Your task to perform on an android device: Open internet settings Image 0: 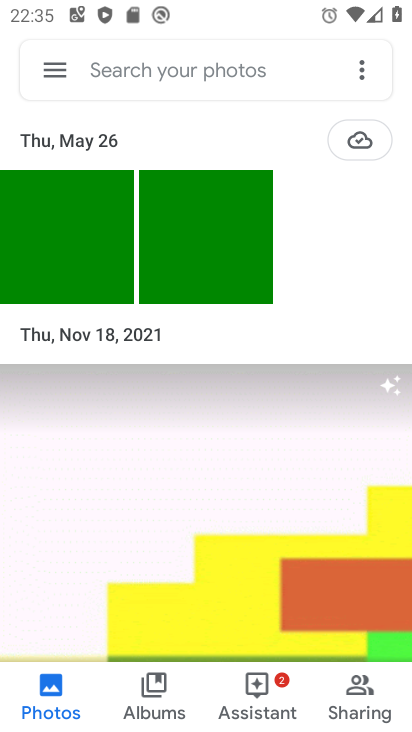
Step 0: press home button
Your task to perform on an android device: Open internet settings Image 1: 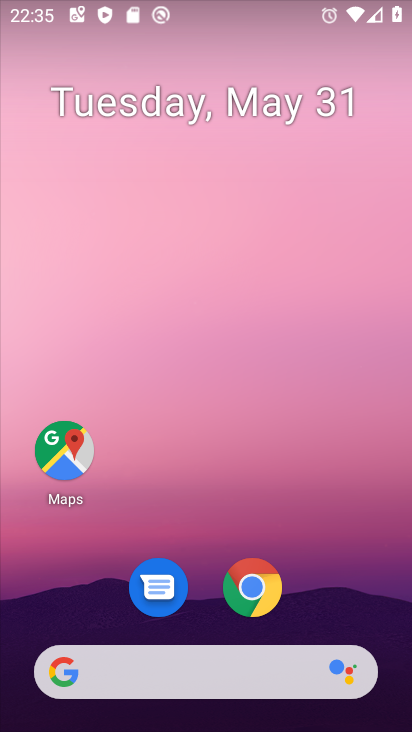
Step 1: drag from (380, 617) to (410, 178)
Your task to perform on an android device: Open internet settings Image 2: 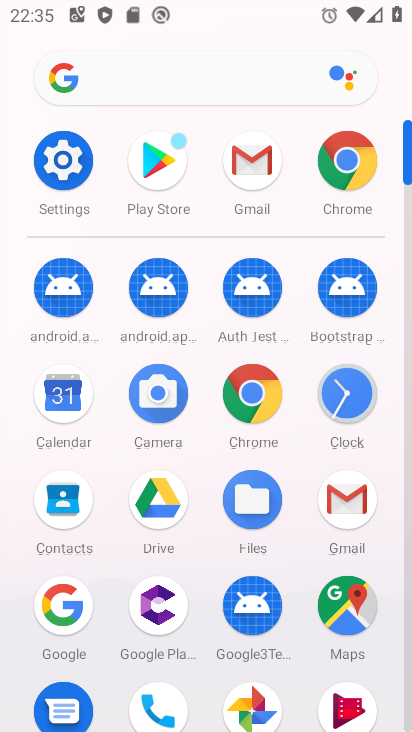
Step 2: click (74, 192)
Your task to perform on an android device: Open internet settings Image 3: 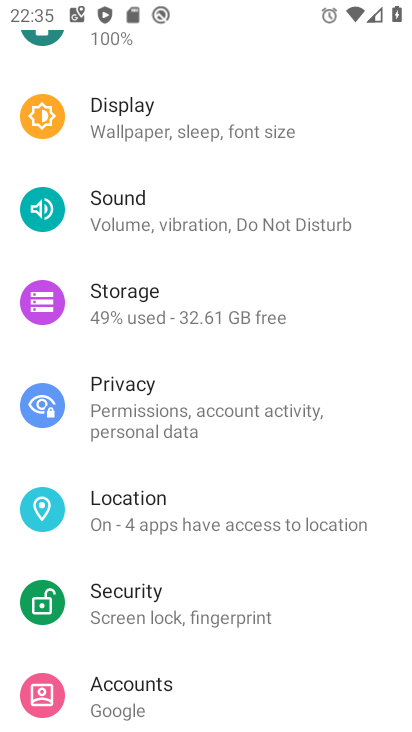
Step 3: drag from (377, 275) to (374, 359)
Your task to perform on an android device: Open internet settings Image 4: 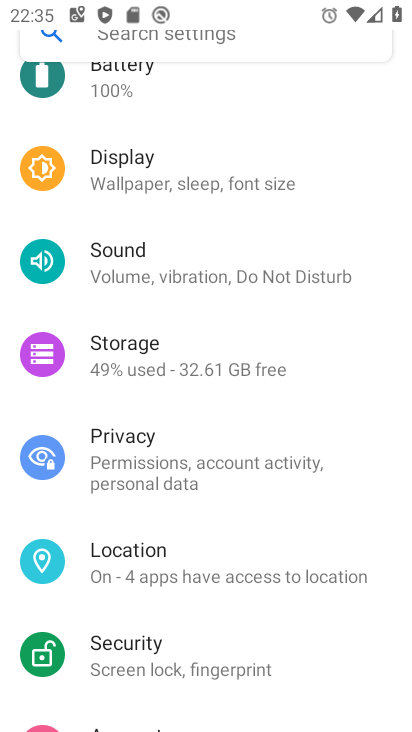
Step 4: drag from (378, 232) to (384, 328)
Your task to perform on an android device: Open internet settings Image 5: 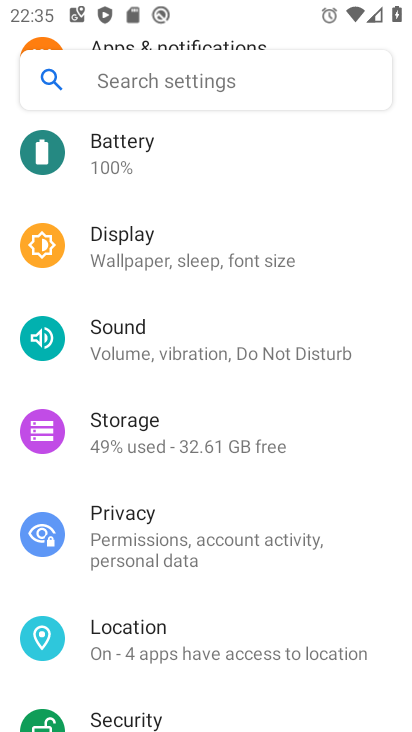
Step 5: drag from (376, 219) to (375, 309)
Your task to perform on an android device: Open internet settings Image 6: 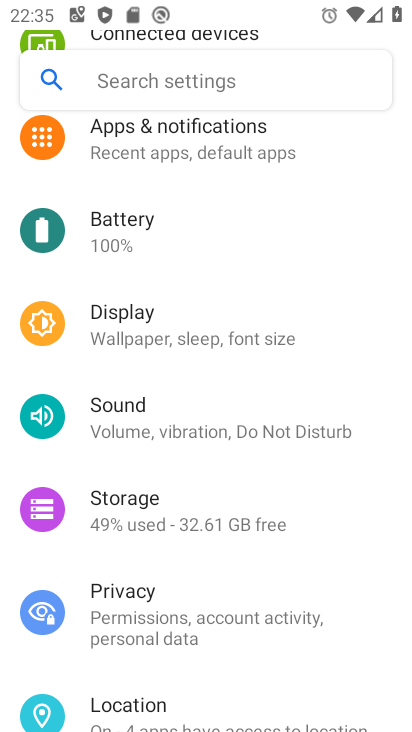
Step 6: drag from (358, 212) to (353, 326)
Your task to perform on an android device: Open internet settings Image 7: 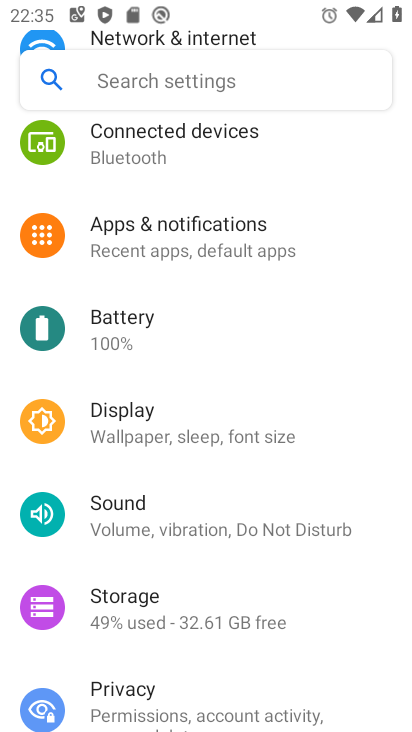
Step 7: drag from (356, 223) to (367, 344)
Your task to perform on an android device: Open internet settings Image 8: 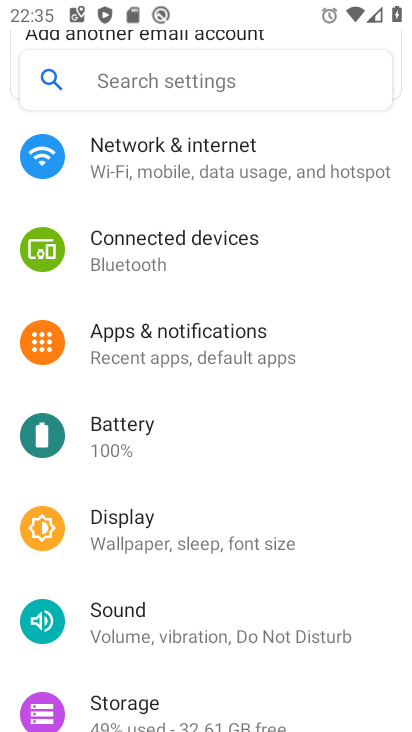
Step 8: drag from (348, 244) to (357, 366)
Your task to perform on an android device: Open internet settings Image 9: 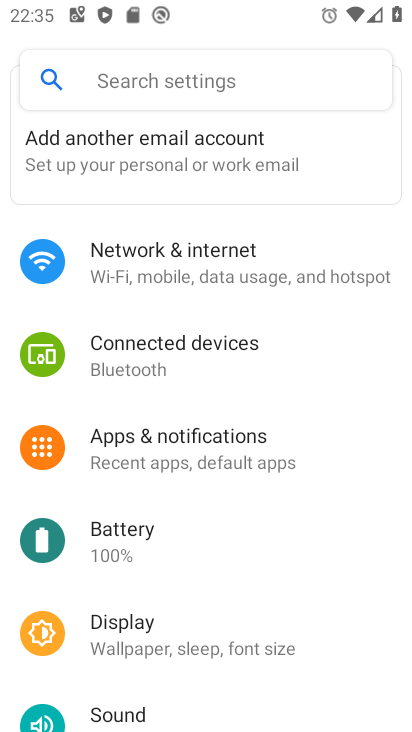
Step 9: drag from (345, 199) to (345, 395)
Your task to perform on an android device: Open internet settings Image 10: 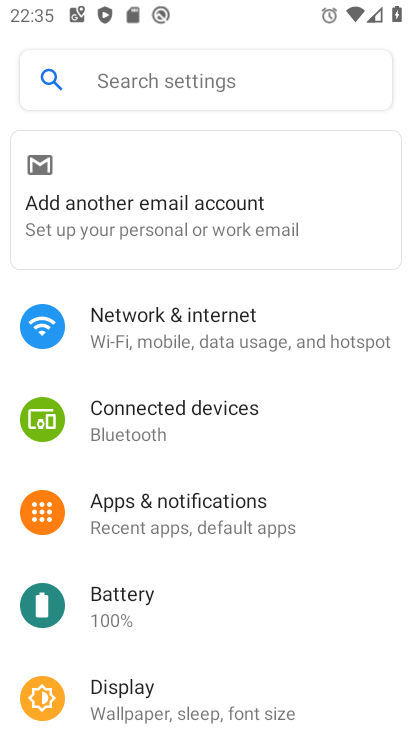
Step 10: click (313, 344)
Your task to perform on an android device: Open internet settings Image 11: 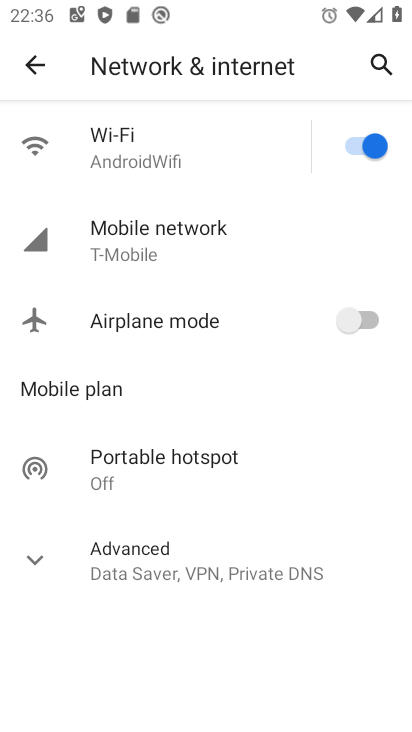
Step 11: task complete